Your task to perform on an android device: change your default location settings in chrome Image 0: 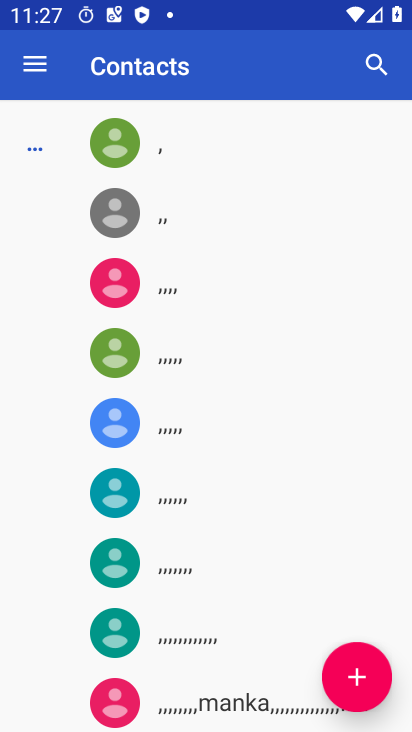
Step 0: drag from (239, 695) to (346, 494)
Your task to perform on an android device: change your default location settings in chrome Image 1: 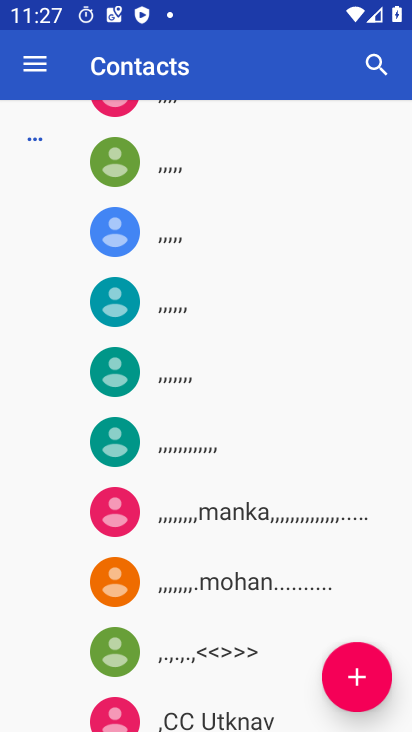
Step 1: press home button
Your task to perform on an android device: change your default location settings in chrome Image 2: 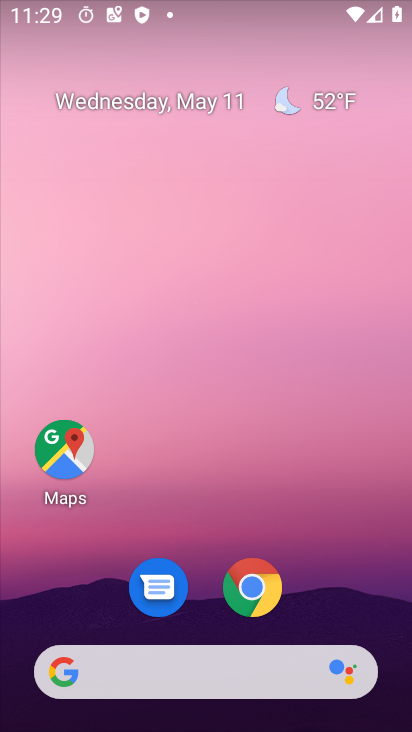
Step 2: drag from (247, 719) to (328, 258)
Your task to perform on an android device: change your default location settings in chrome Image 3: 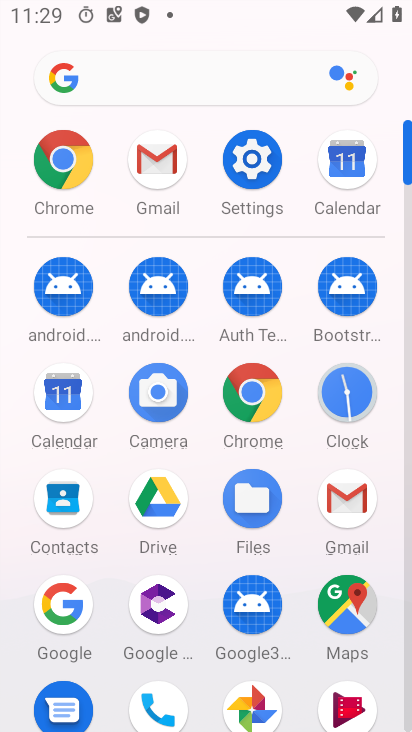
Step 3: click (238, 398)
Your task to perform on an android device: change your default location settings in chrome Image 4: 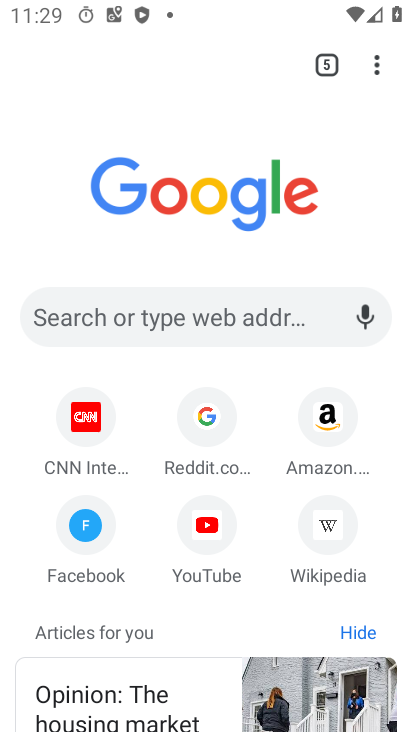
Step 4: click (362, 77)
Your task to perform on an android device: change your default location settings in chrome Image 5: 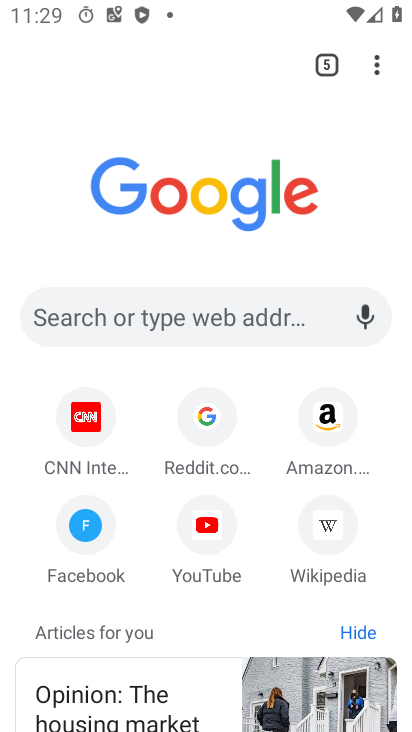
Step 5: click (366, 93)
Your task to perform on an android device: change your default location settings in chrome Image 6: 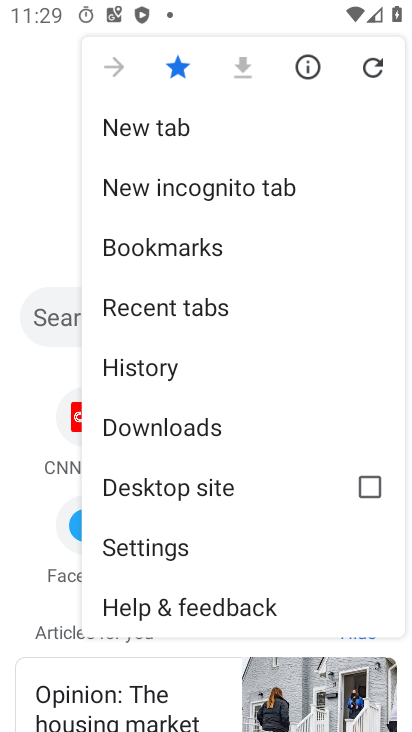
Step 6: click (165, 535)
Your task to perform on an android device: change your default location settings in chrome Image 7: 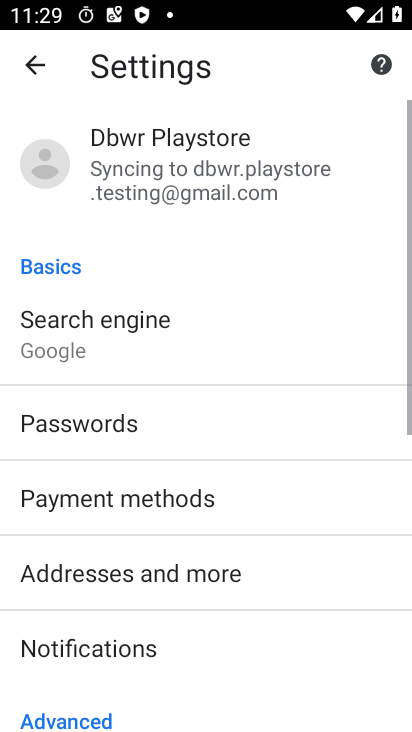
Step 7: drag from (99, 629) to (225, 288)
Your task to perform on an android device: change your default location settings in chrome Image 8: 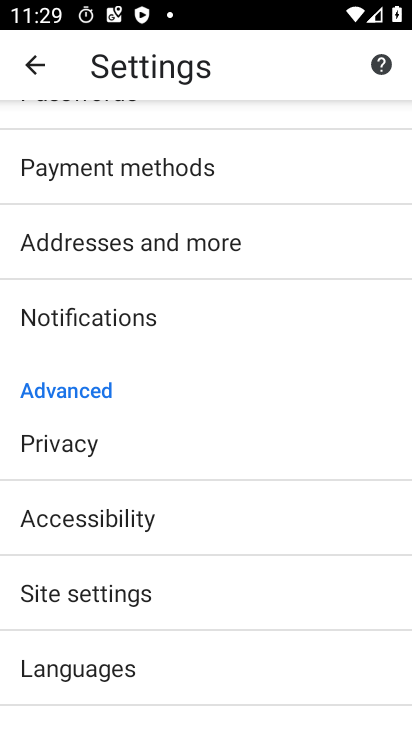
Step 8: click (86, 664)
Your task to perform on an android device: change your default location settings in chrome Image 9: 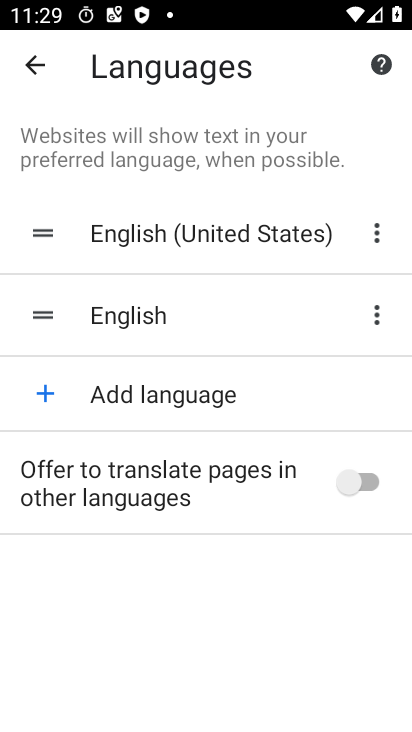
Step 9: click (26, 71)
Your task to perform on an android device: change your default location settings in chrome Image 10: 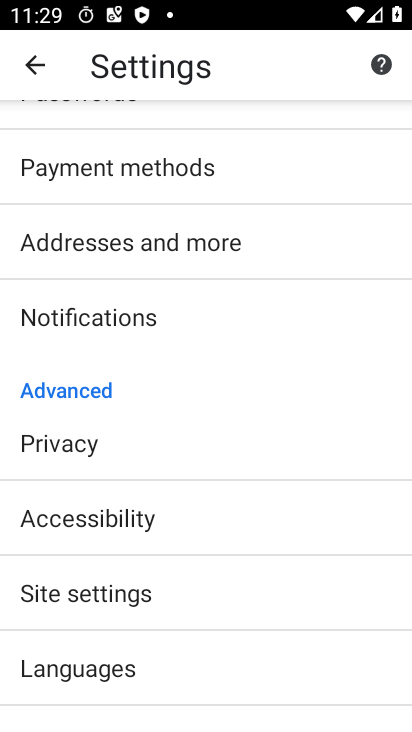
Step 10: click (109, 586)
Your task to perform on an android device: change your default location settings in chrome Image 11: 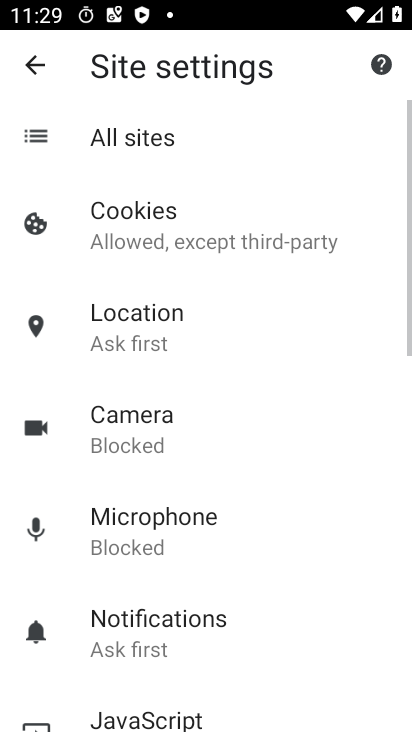
Step 11: click (169, 343)
Your task to perform on an android device: change your default location settings in chrome Image 12: 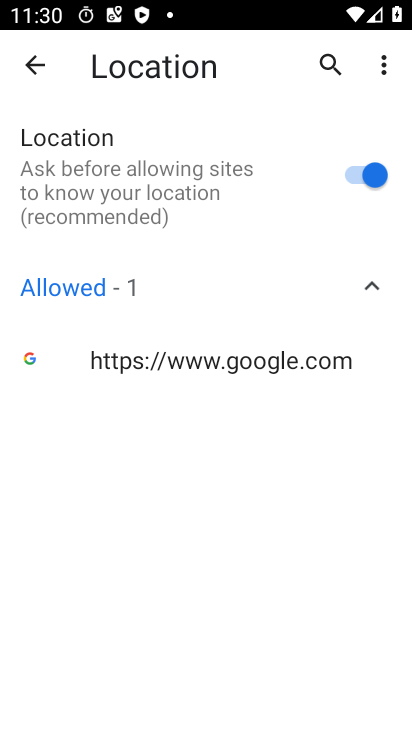
Step 12: task complete